Your task to perform on an android device: open a bookmark in the chrome app Image 0: 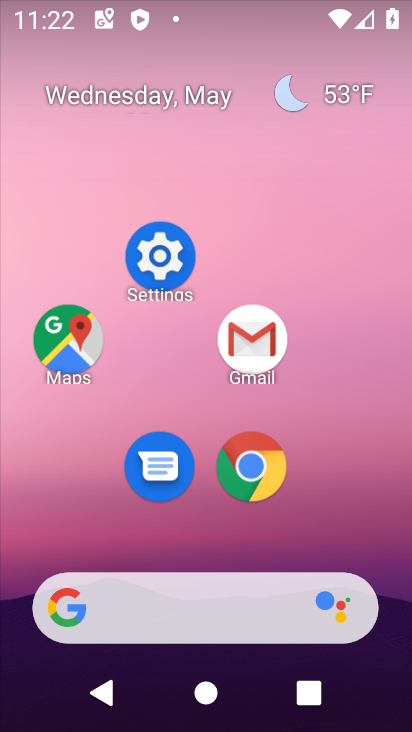
Step 0: drag from (185, 540) to (232, 137)
Your task to perform on an android device: open a bookmark in the chrome app Image 1: 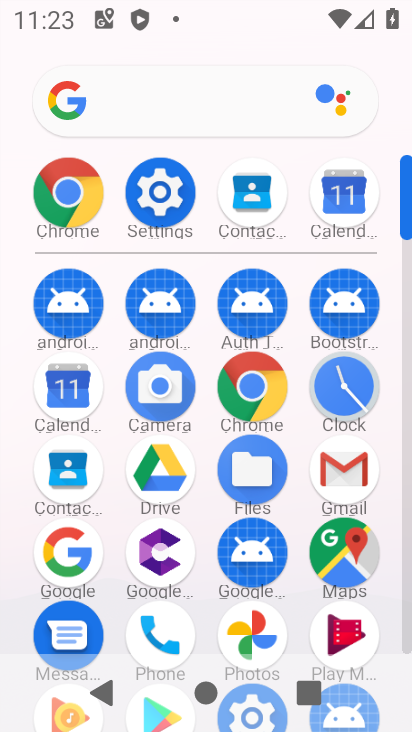
Step 1: drag from (208, 642) to (193, 287)
Your task to perform on an android device: open a bookmark in the chrome app Image 2: 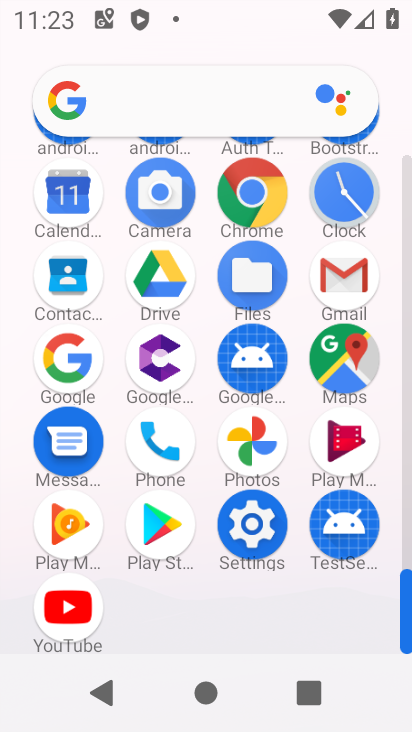
Step 2: click (248, 190)
Your task to perform on an android device: open a bookmark in the chrome app Image 3: 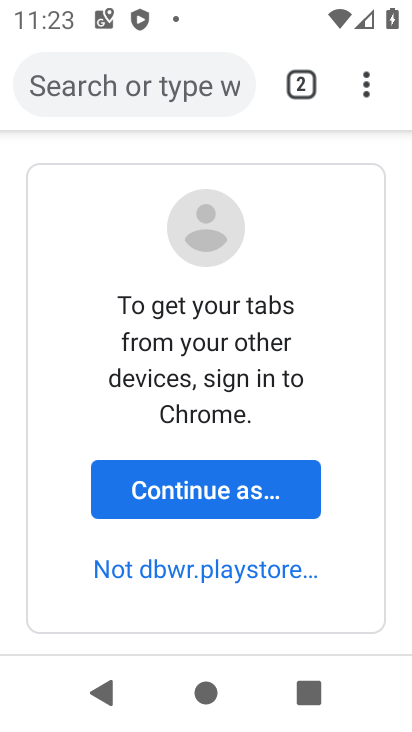
Step 3: drag from (223, 539) to (248, 341)
Your task to perform on an android device: open a bookmark in the chrome app Image 4: 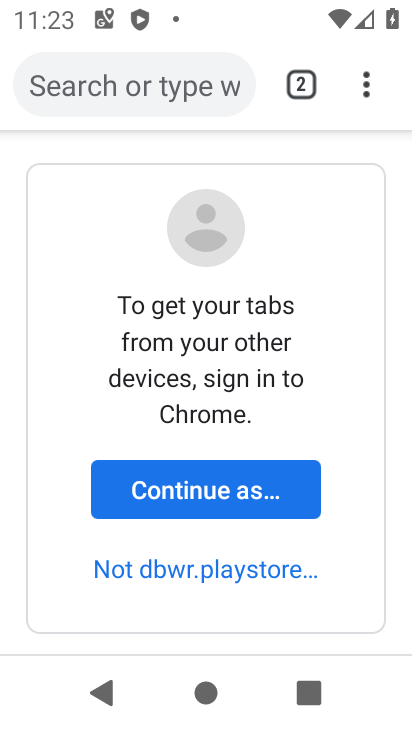
Step 4: drag from (260, 596) to (272, 239)
Your task to perform on an android device: open a bookmark in the chrome app Image 5: 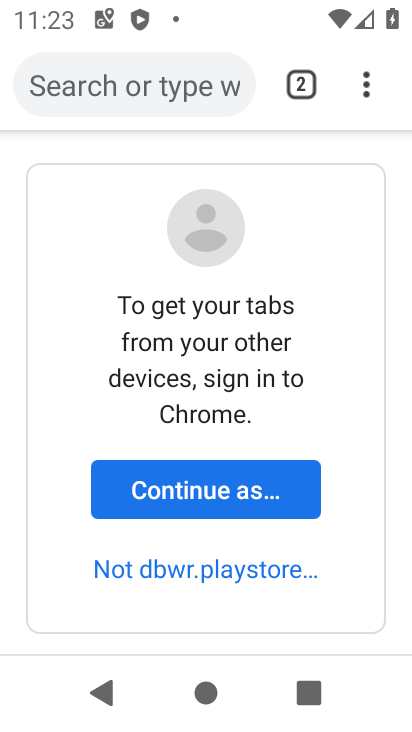
Step 5: drag from (215, 620) to (278, 252)
Your task to perform on an android device: open a bookmark in the chrome app Image 6: 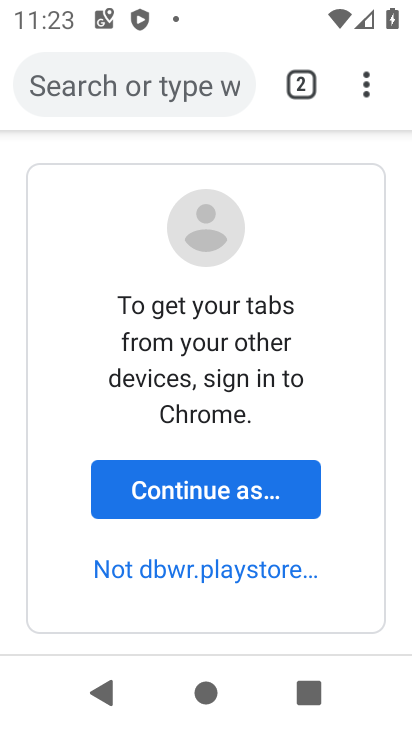
Step 6: drag from (363, 101) to (174, 325)
Your task to perform on an android device: open a bookmark in the chrome app Image 7: 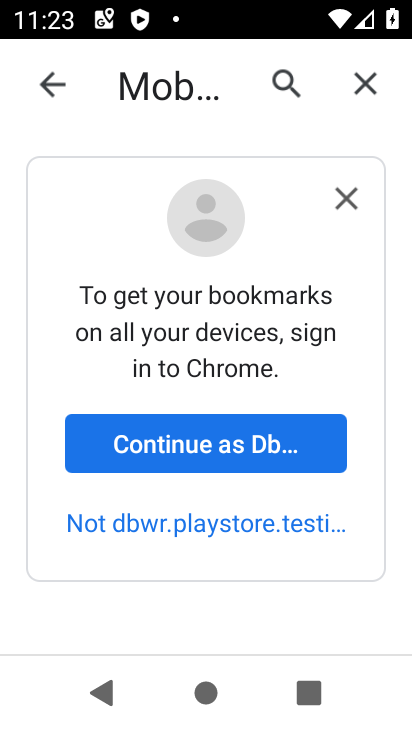
Step 7: drag from (229, 589) to (254, 344)
Your task to perform on an android device: open a bookmark in the chrome app Image 8: 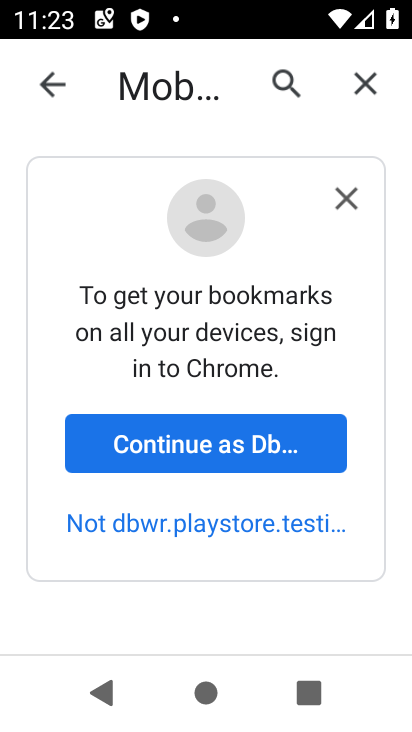
Step 8: drag from (228, 635) to (230, 269)
Your task to perform on an android device: open a bookmark in the chrome app Image 9: 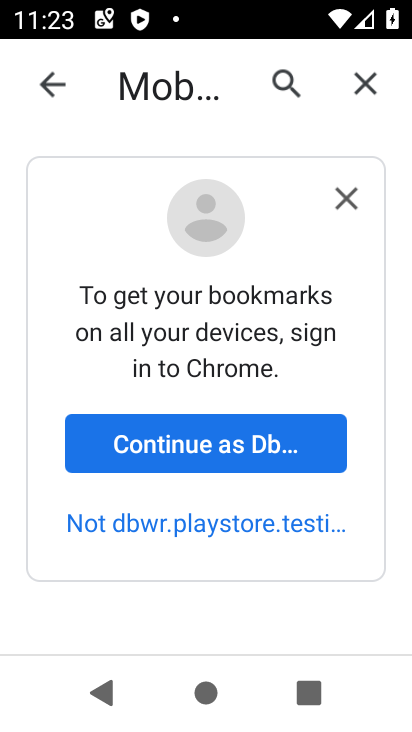
Step 9: click (343, 198)
Your task to perform on an android device: open a bookmark in the chrome app Image 10: 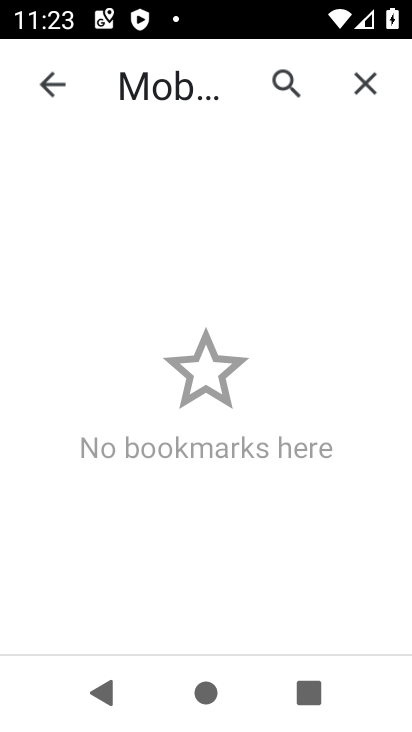
Step 10: task complete